Your task to perform on an android device: Go to Wikipedia Image 0: 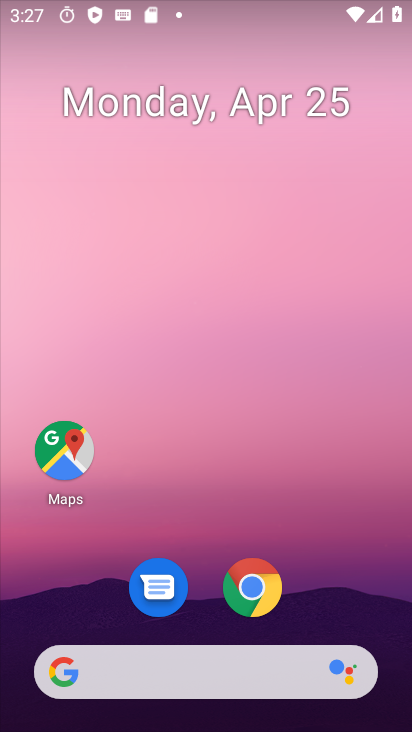
Step 0: drag from (339, 590) to (293, 94)
Your task to perform on an android device: Go to Wikipedia Image 1: 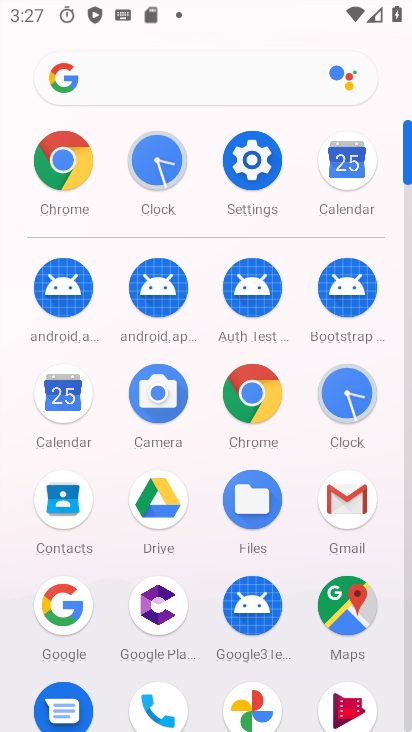
Step 1: click (253, 382)
Your task to perform on an android device: Go to Wikipedia Image 2: 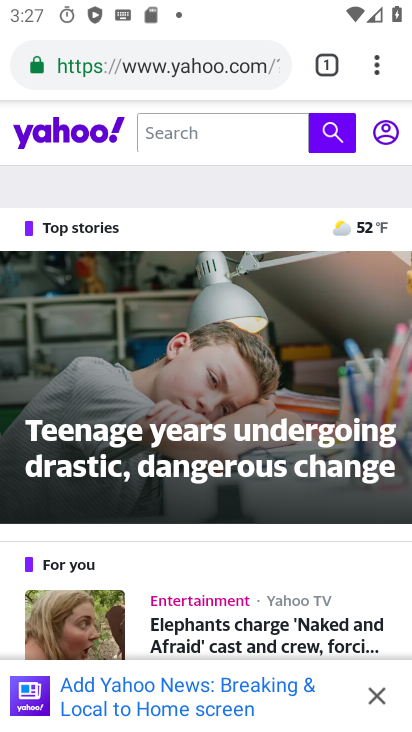
Step 2: click (240, 70)
Your task to perform on an android device: Go to Wikipedia Image 3: 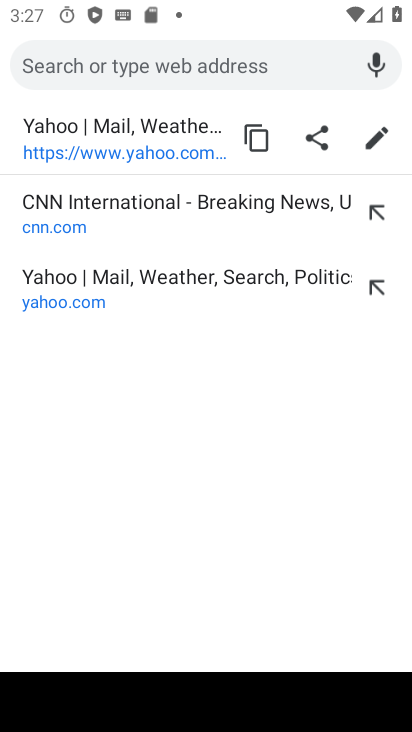
Step 3: type "wikipedia"
Your task to perform on an android device: Go to Wikipedia Image 4: 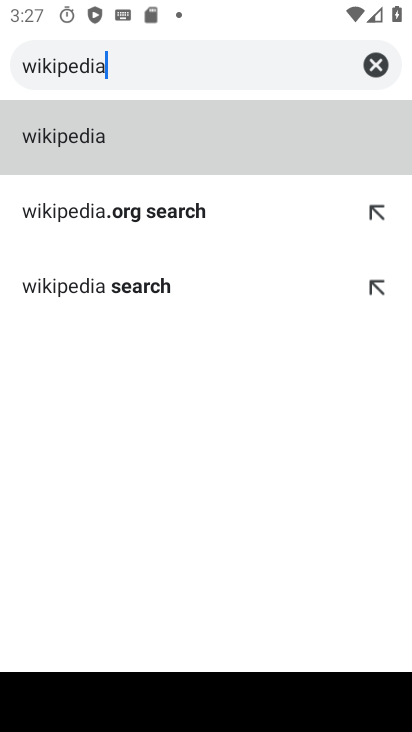
Step 4: click (95, 149)
Your task to perform on an android device: Go to Wikipedia Image 5: 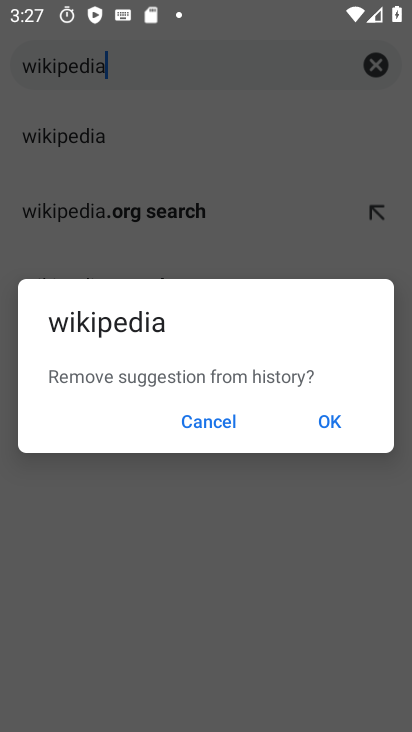
Step 5: click (211, 420)
Your task to perform on an android device: Go to Wikipedia Image 6: 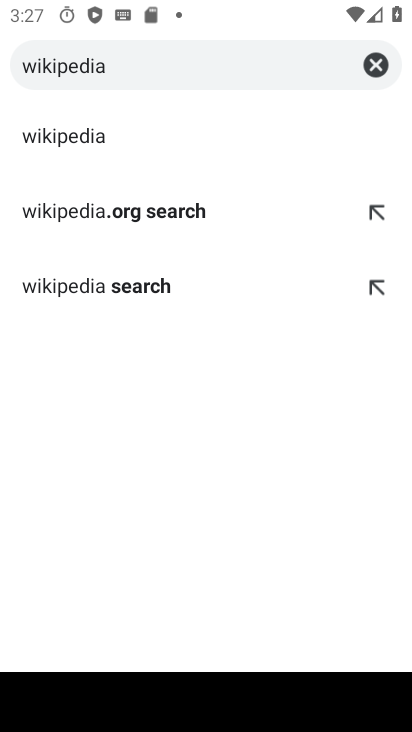
Step 6: click (217, 68)
Your task to perform on an android device: Go to Wikipedia Image 7: 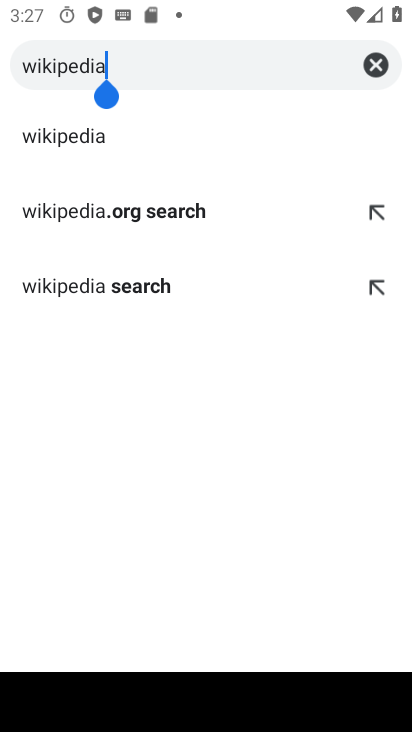
Step 7: press enter
Your task to perform on an android device: Go to Wikipedia Image 8: 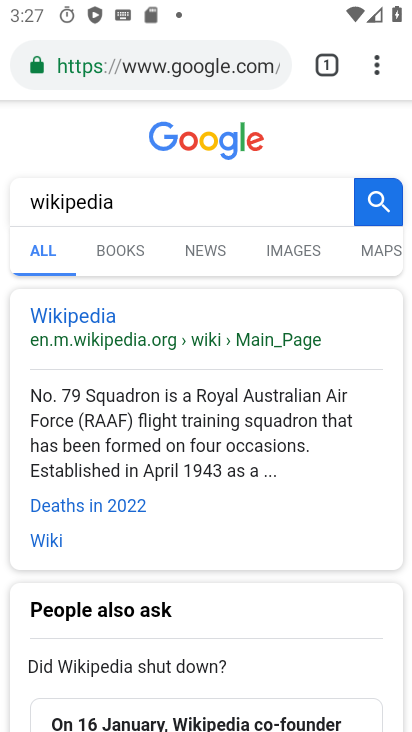
Step 8: click (65, 321)
Your task to perform on an android device: Go to Wikipedia Image 9: 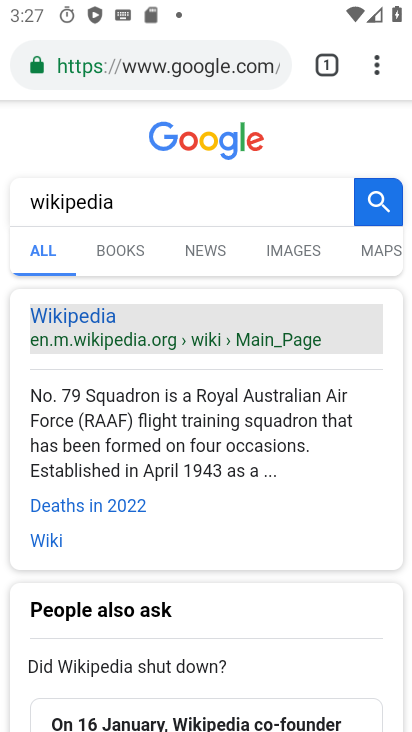
Step 9: click (65, 318)
Your task to perform on an android device: Go to Wikipedia Image 10: 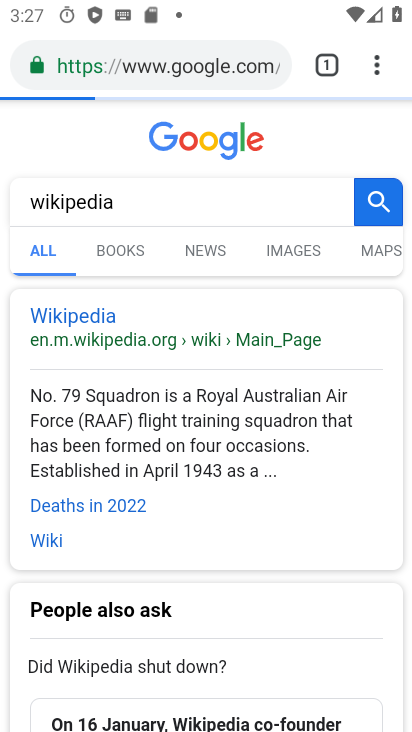
Step 10: click (67, 313)
Your task to perform on an android device: Go to Wikipedia Image 11: 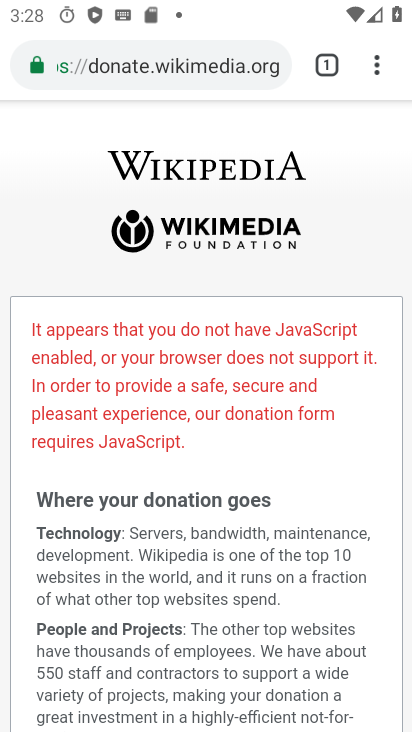
Step 11: task complete